Your task to perform on an android device: change the clock display to digital Image 0: 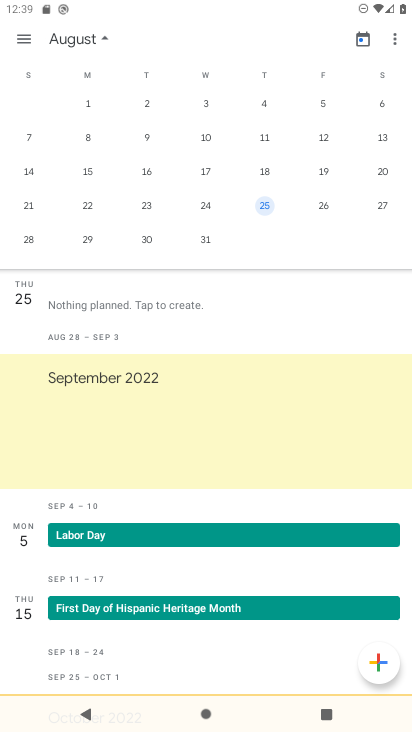
Step 0: press home button
Your task to perform on an android device: change the clock display to digital Image 1: 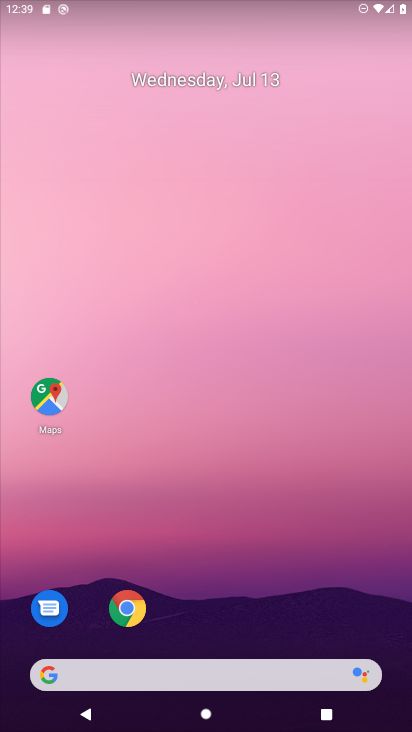
Step 1: click (229, 67)
Your task to perform on an android device: change the clock display to digital Image 2: 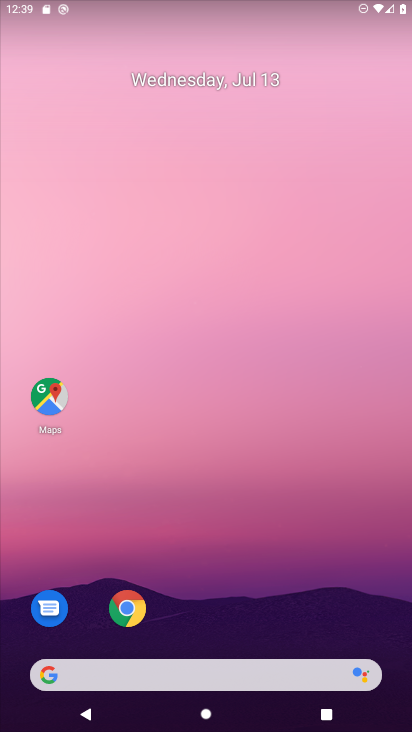
Step 2: drag from (172, 643) to (166, 45)
Your task to perform on an android device: change the clock display to digital Image 3: 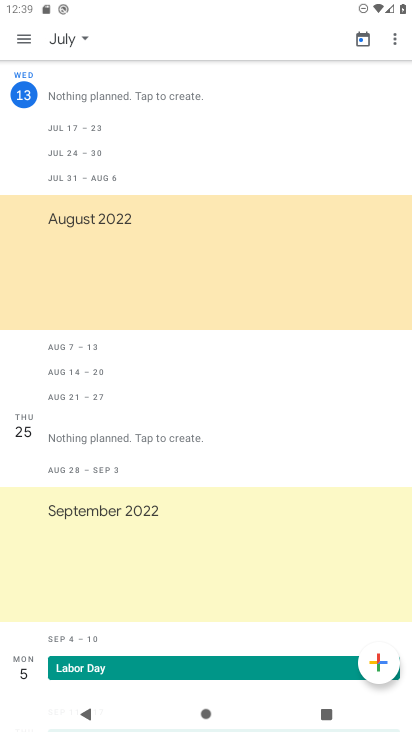
Step 3: press home button
Your task to perform on an android device: change the clock display to digital Image 4: 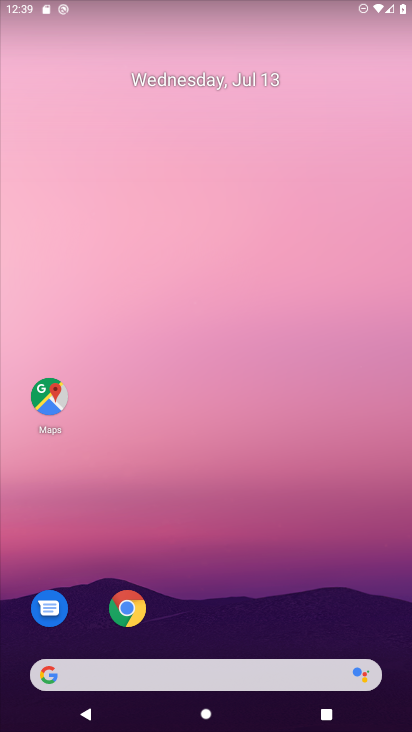
Step 4: drag from (176, 629) to (156, 192)
Your task to perform on an android device: change the clock display to digital Image 5: 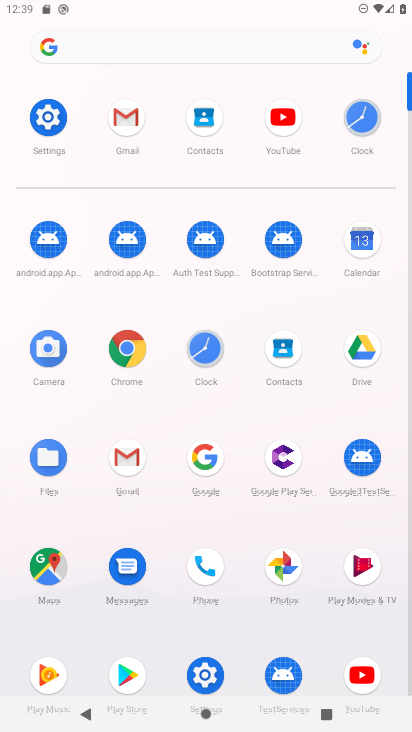
Step 5: click (212, 351)
Your task to perform on an android device: change the clock display to digital Image 6: 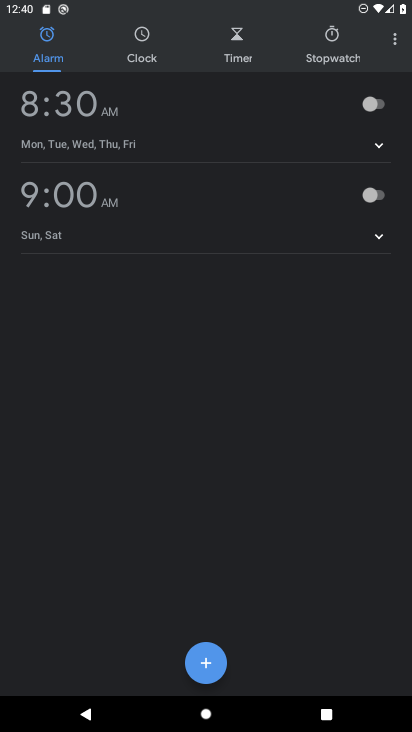
Step 6: click (403, 47)
Your task to perform on an android device: change the clock display to digital Image 7: 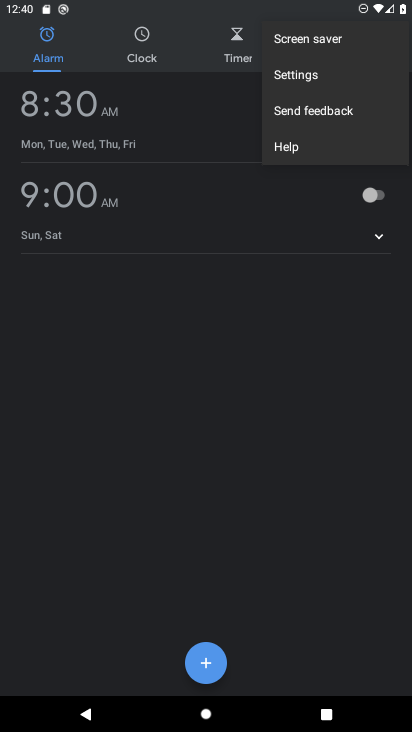
Step 7: click (322, 73)
Your task to perform on an android device: change the clock display to digital Image 8: 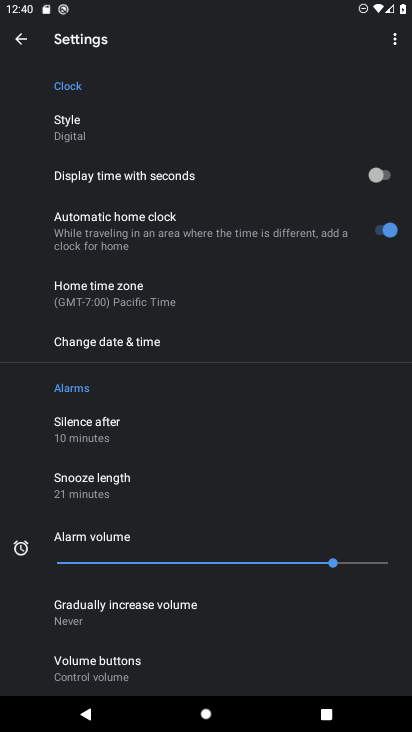
Step 8: task complete